Your task to perform on an android device: Do I have any events tomorrow? Image 0: 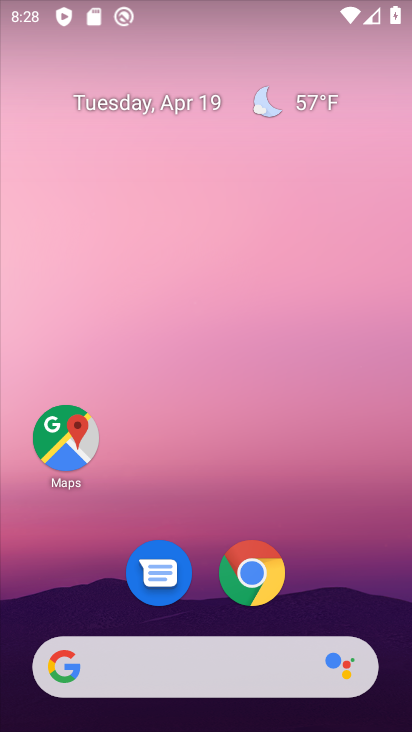
Step 0: drag from (359, 545) to (318, 121)
Your task to perform on an android device: Do I have any events tomorrow? Image 1: 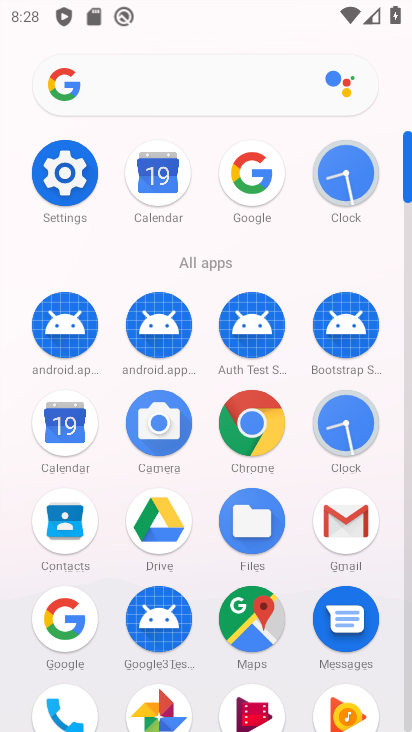
Step 1: click (74, 421)
Your task to perform on an android device: Do I have any events tomorrow? Image 2: 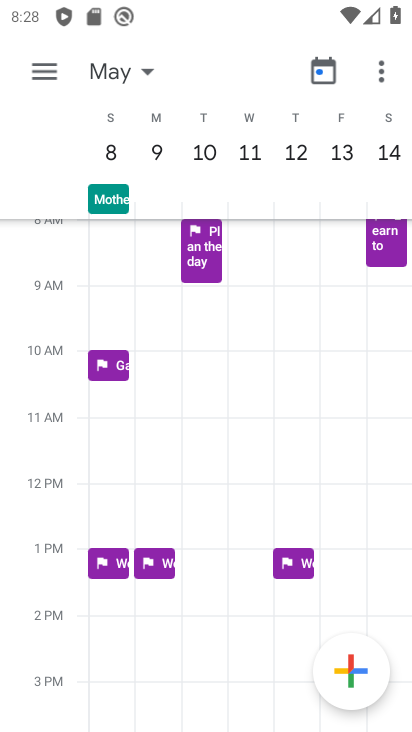
Step 2: click (29, 65)
Your task to perform on an android device: Do I have any events tomorrow? Image 3: 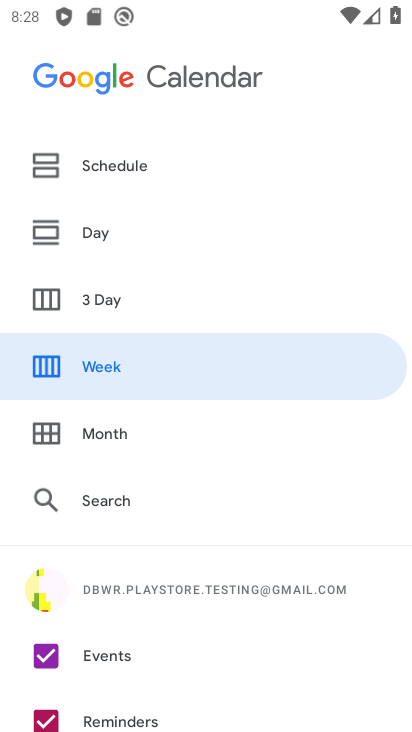
Step 3: drag from (140, 643) to (133, 288)
Your task to perform on an android device: Do I have any events tomorrow? Image 4: 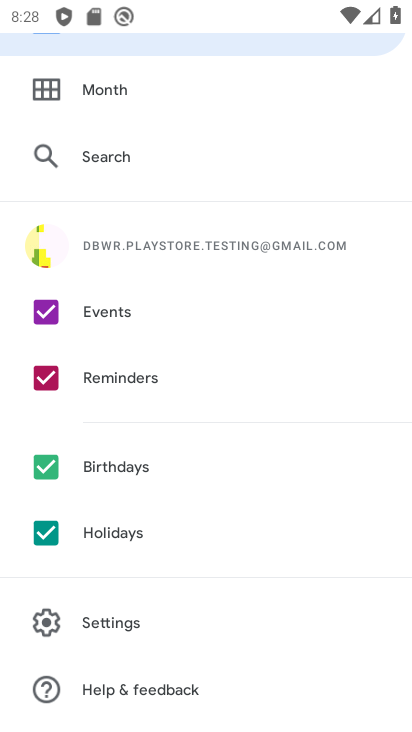
Step 4: click (49, 379)
Your task to perform on an android device: Do I have any events tomorrow? Image 5: 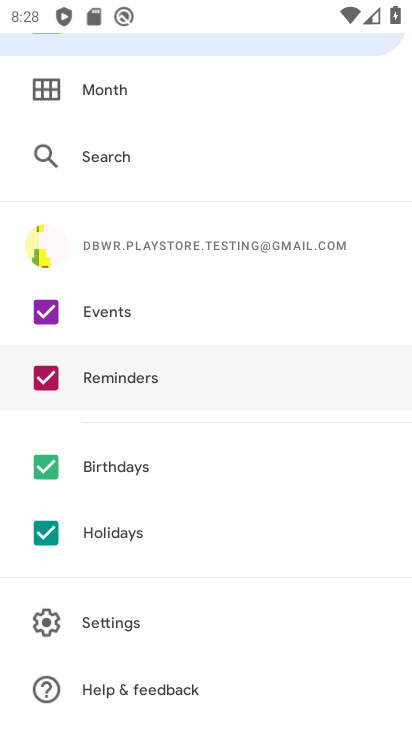
Step 5: click (52, 471)
Your task to perform on an android device: Do I have any events tomorrow? Image 6: 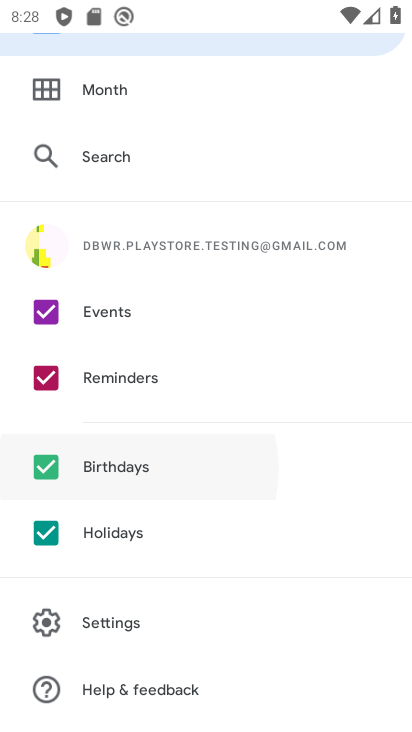
Step 6: click (52, 521)
Your task to perform on an android device: Do I have any events tomorrow? Image 7: 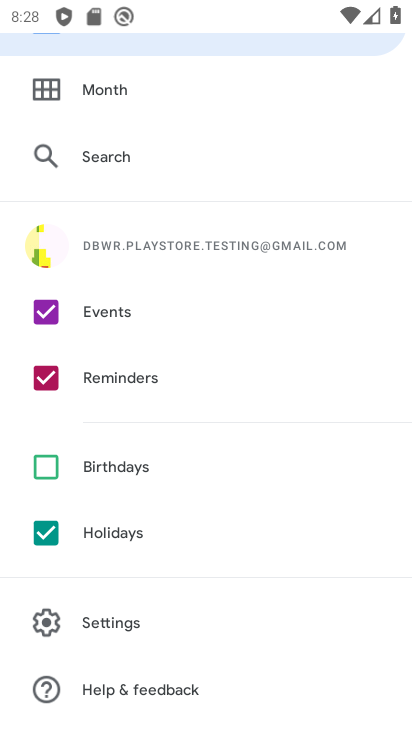
Step 7: click (47, 530)
Your task to perform on an android device: Do I have any events tomorrow? Image 8: 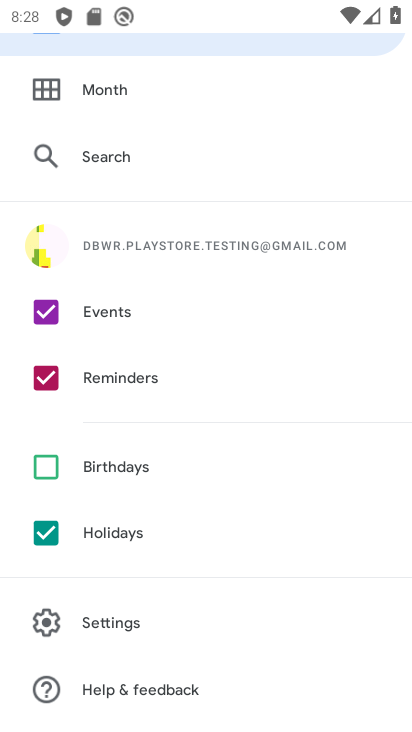
Step 8: click (51, 379)
Your task to perform on an android device: Do I have any events tomorrow? Image 9: 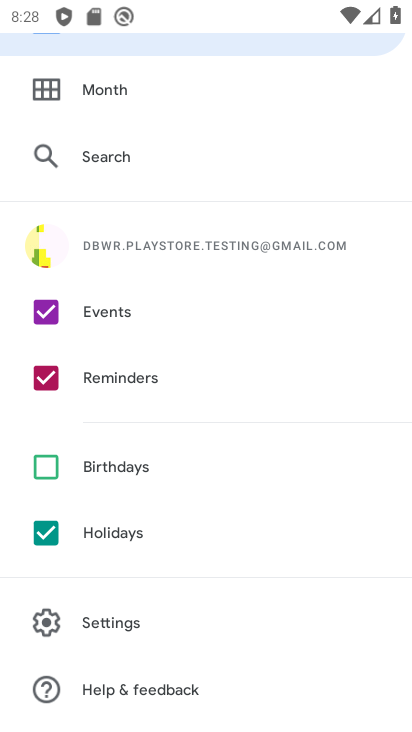
Step 9: click (52, 380)
Your task to perform on an android device: Do I have any events tomorrow? Image 10: 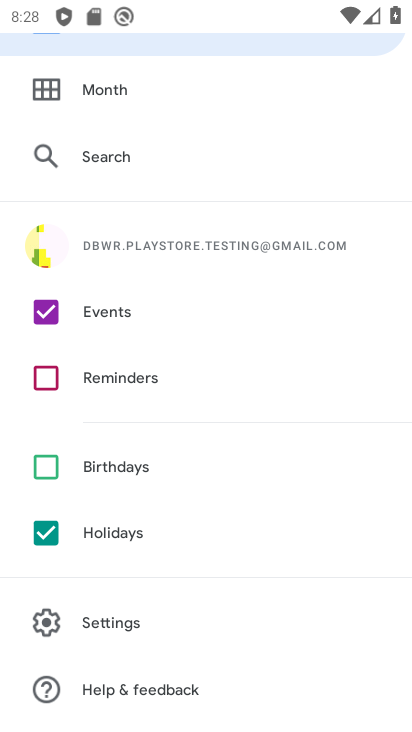
Step 10: click (47, 533)
Your task to perform on an android device: Do I have any events tomorrow? Image 11: 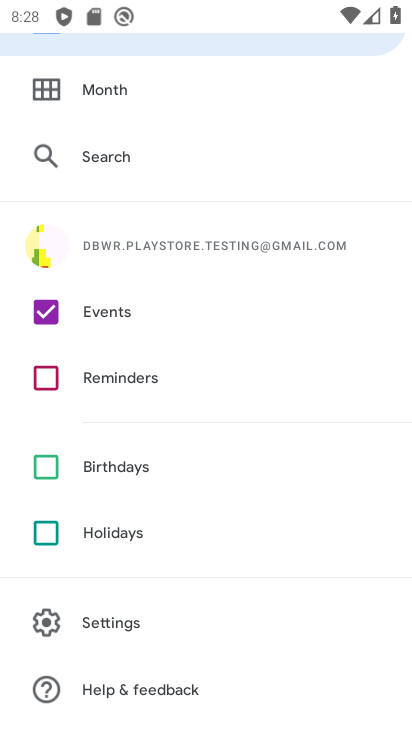
Step 11: drag from (245, 190) to (254, 650)
Your task to perform on an android device: Do I have any events tomorrow? Image 12: 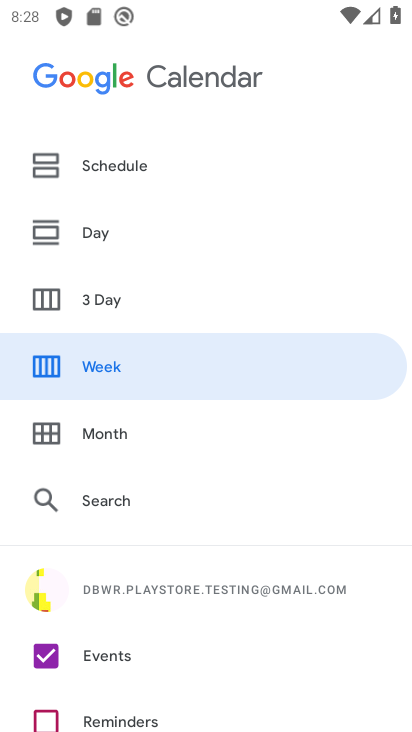
Step 12: click (118, 161)
Your task to perform on an android device: Do I have any events tomorrow? Image 13: 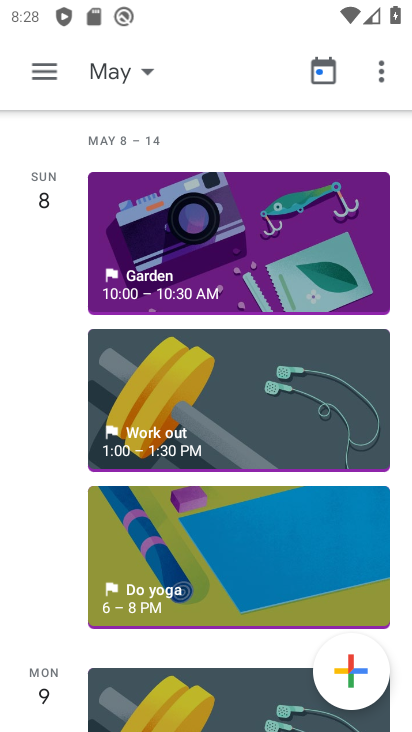
Step 13: click (119, 71)
Your task to perform on an android device: Do I have any events tomorrow? Image 14: 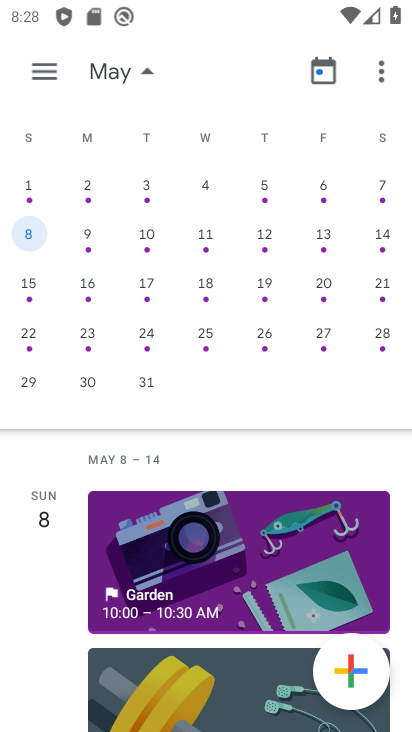
Step 14: drag from (314, 291) to (410, 290)
Your task to perform on an android device: Do I have any events tomorrow? Image 15: 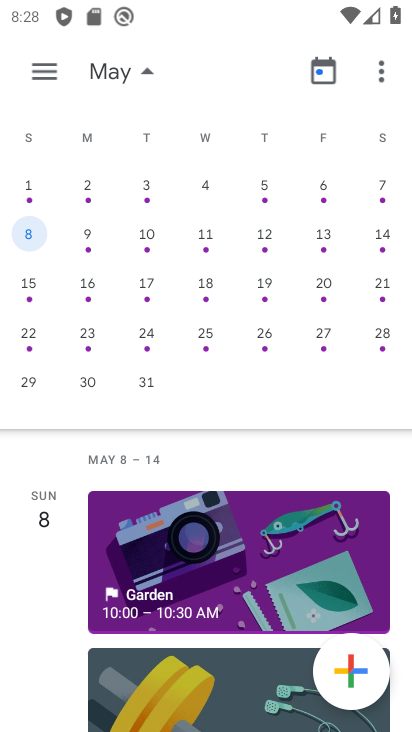
Step 15: drag from (20, 275) to (411, 272)
Your task to perform on an android device: Do I have any events tomorrow? Image 16: 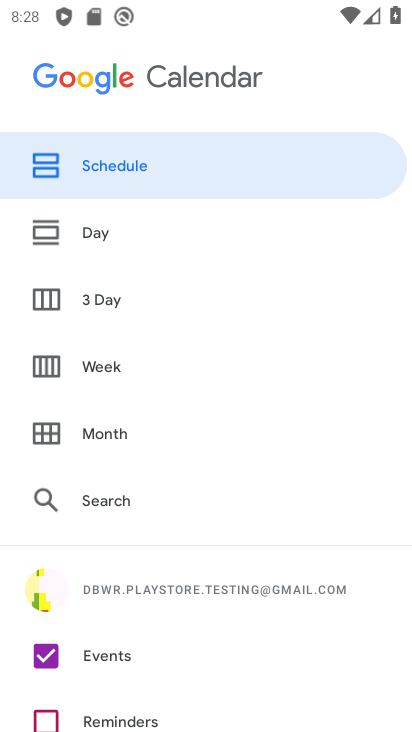
Step 16: click (214, 167)
Your task to perform on an android device: Do I have any events tomorrow? Image 17: 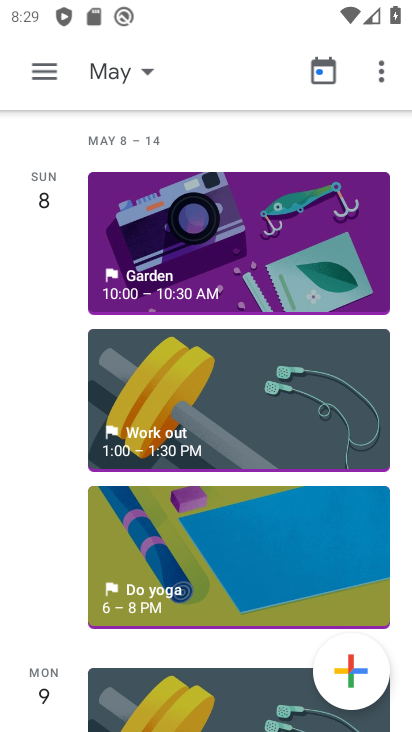
Step 17: click (110, 69)
Your task to perform on an android device: Do I have any events tomorrow? Image 18: 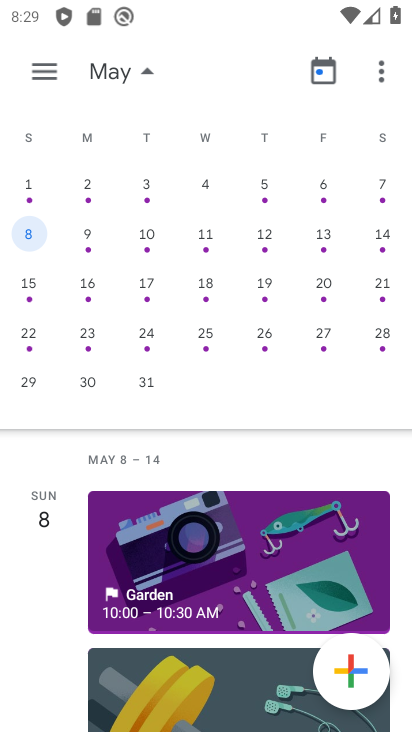
Step 18: drag from (83, 260) to (322, 241)
Your task to perform on an android device: Do I have any events tomorrow? Image 19: 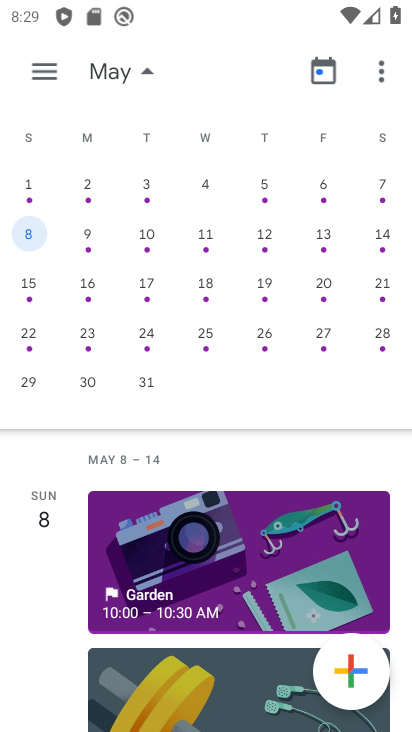
Step 19: drag from (142, 274) to (411, 268)
Your task to perform on an android device: Do I have any events tomorrow? Image 20: 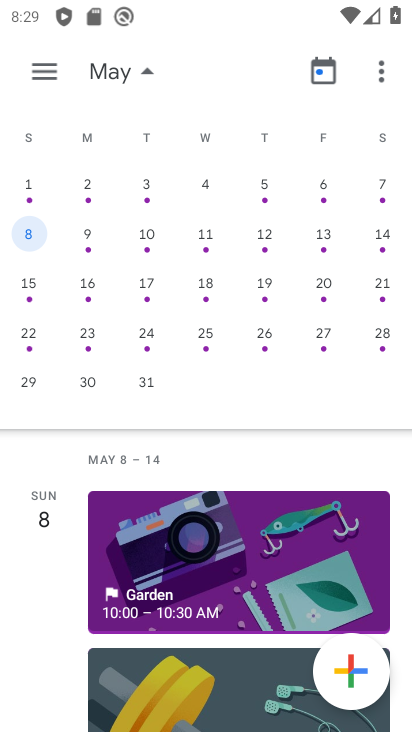
Step 20: drag from (59, 272) to (391, 264)
Your task to perform on an android device: Do I have any events tomorrow? Image 21: 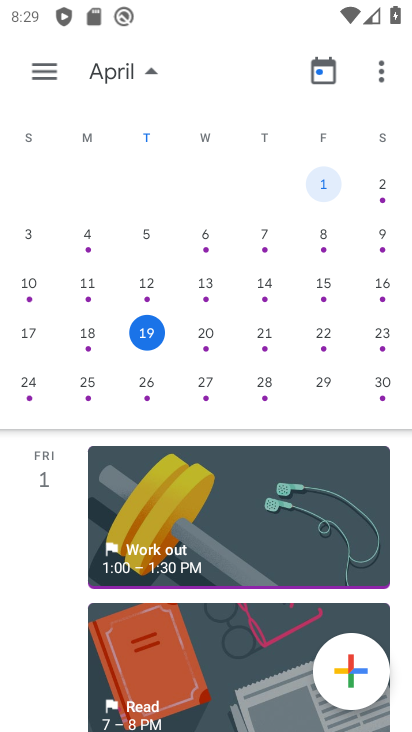
Step 21: click (266, 335)
Your task to perform on an android device: Do I have any events tomorrow? Image 22: 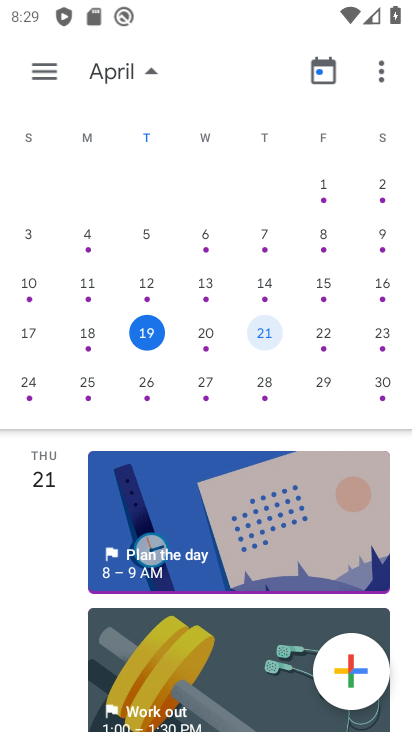
Step 22: drag from (263, 428) to (261, 126)
Your task to perform on an android device: Do I have any events tomorrow? Image 23: 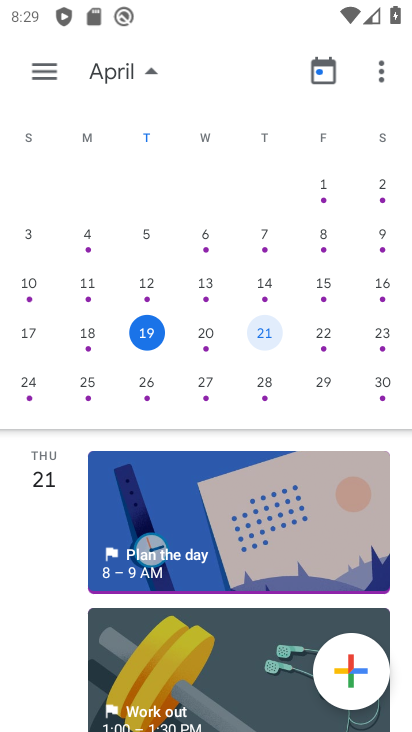
Step 23: click (144, 69)
Your task to perform on an android device: Do I have any events tomorrow? Image 24: 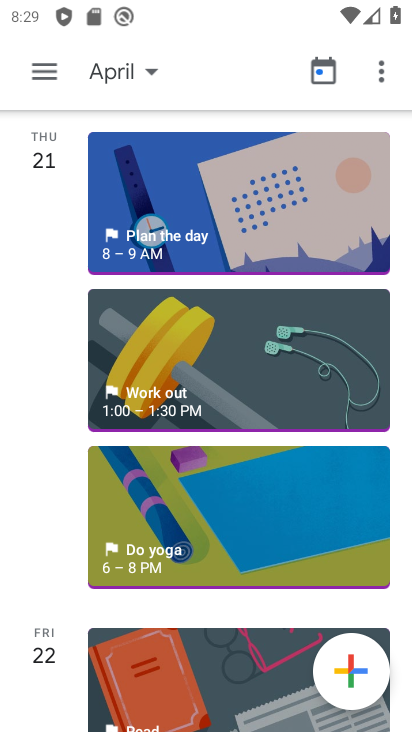
Step 24: task complete